Your task to perform on an android device: Open maps Image 0: 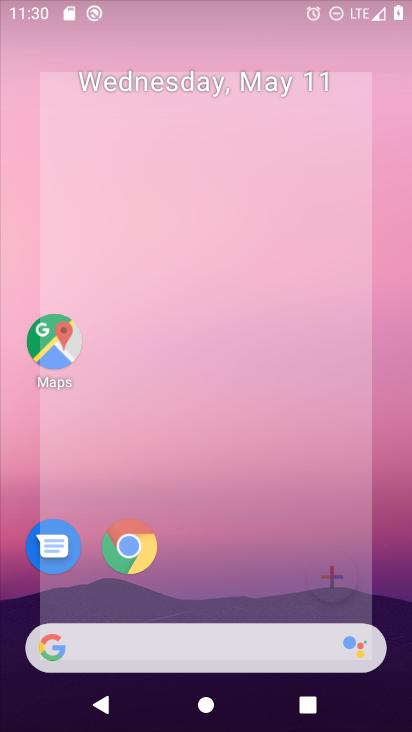
Step 0: drag from (380, 618) to (195, 177)
Your task to perform on an android device: Open maps Image 1: 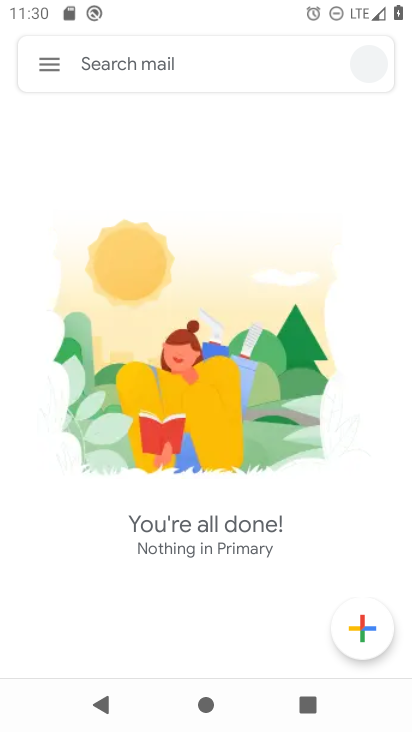
Step 1: press home button
Your task to perform on an android device: Open maps Image 2: 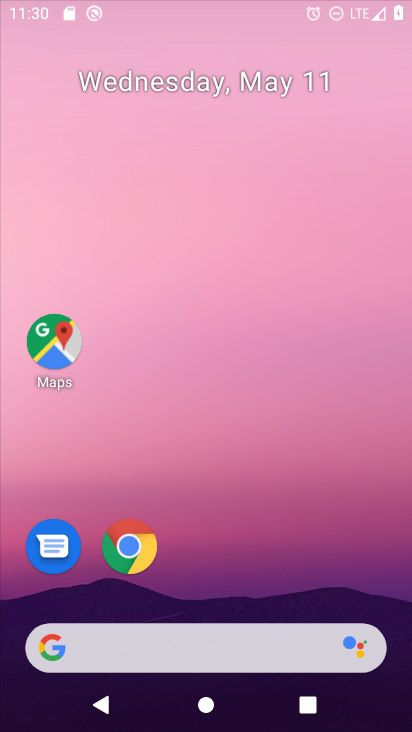
Step 2: drag from (376, 610) to (103, 62)
Your task to perform on an android device: Open maps Image 3: 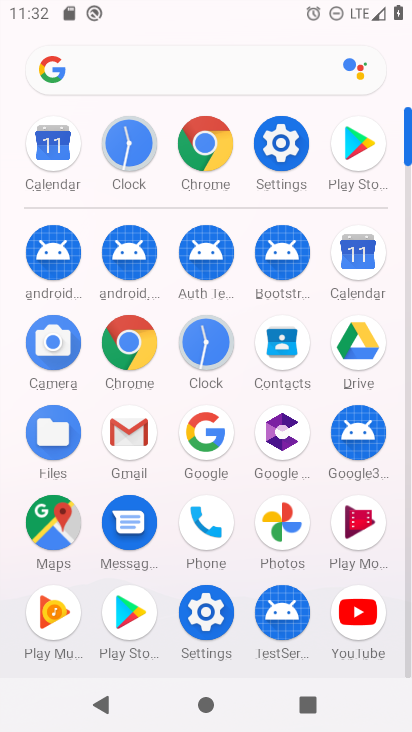
Step 3: click (53, 536)
Your task to perform on an android device: Open maps Image 4: 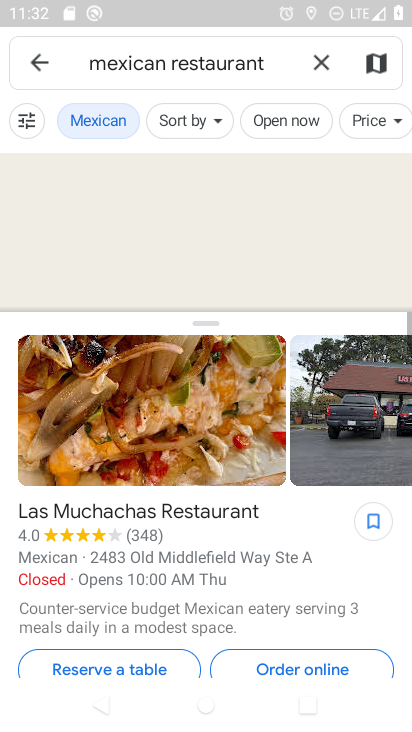
Step 4: click (319, 66)
Your task to perform on an android device: Open maps Image 5: 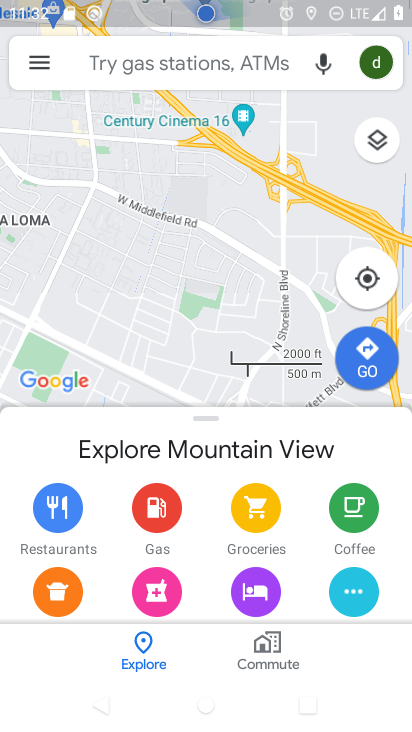
Step 5: task complete